Your task to perform on an android device: What's the weather going to be this weekend? Image 0: 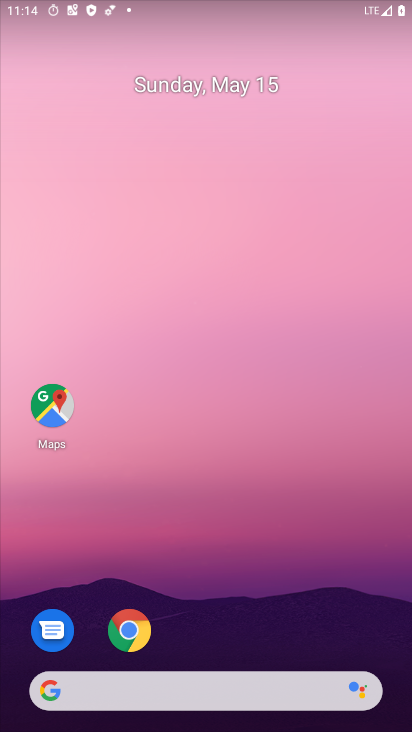
Step 0: click (147, 686)
Your task to perform on an android device: What's the weather going to be this weekend? Image 1: 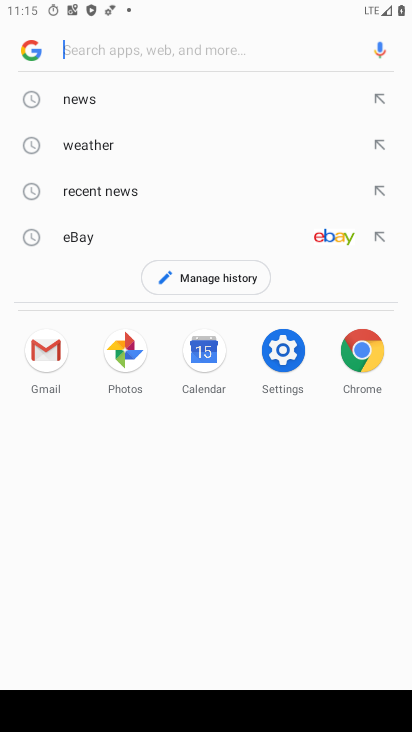
Step 1: click (83, 144)
Your task to perform on an android device: What's the weather going to be this weekend? Image 2: 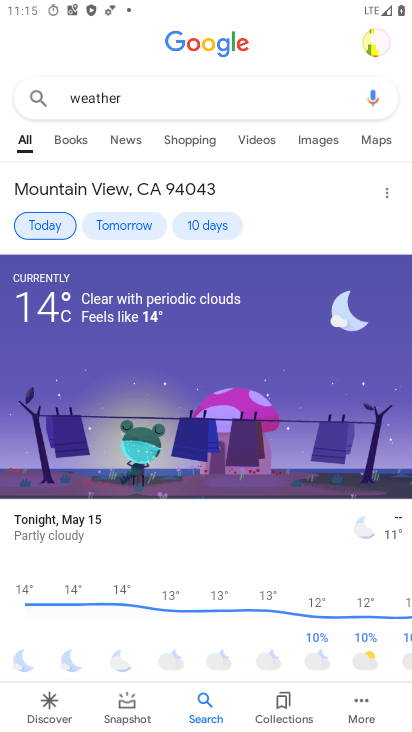
Step 2: click (186, 215)
Your task to perform on an android device: What's the weather going to be this weekend? Image 3: 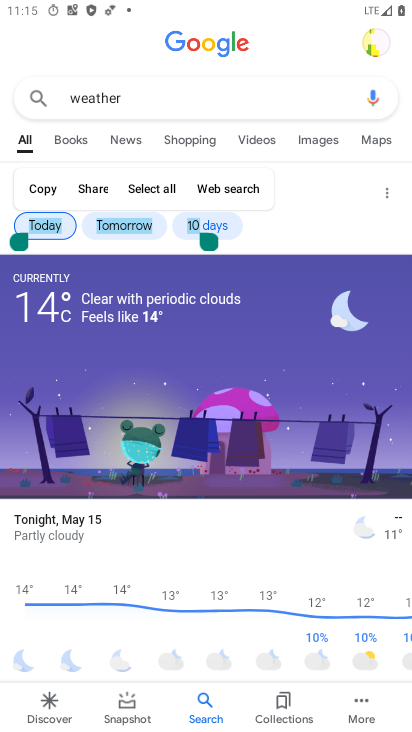
Step 3: drag from (192, 558) to (170, 710)
Your task to perform on an android device: What's the weather going to be this weekend? Image 4: 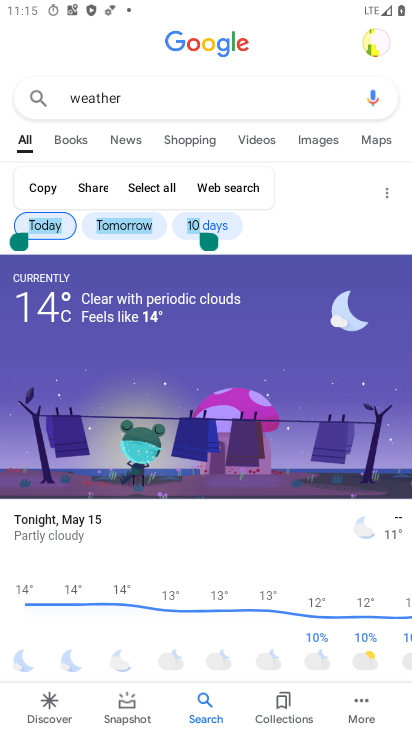
Step 4: click (210, 225)
Your task to perform on an android device: What's the weather going to be this weekend? Image 5: 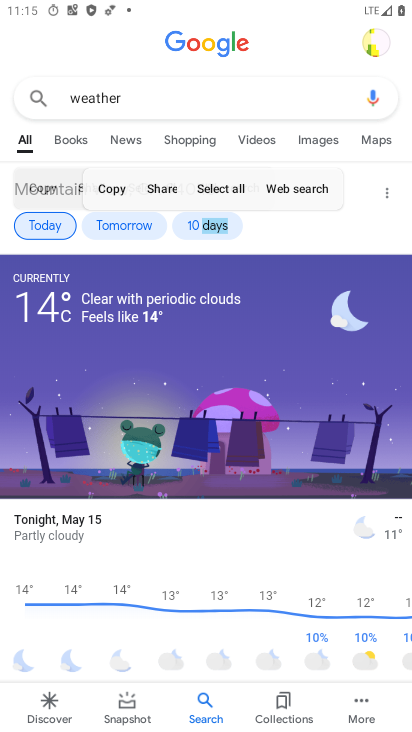
Step 5: click (304, 221)
Your task to perform on an android device: What's the weather going to be this weekend? Image 6: 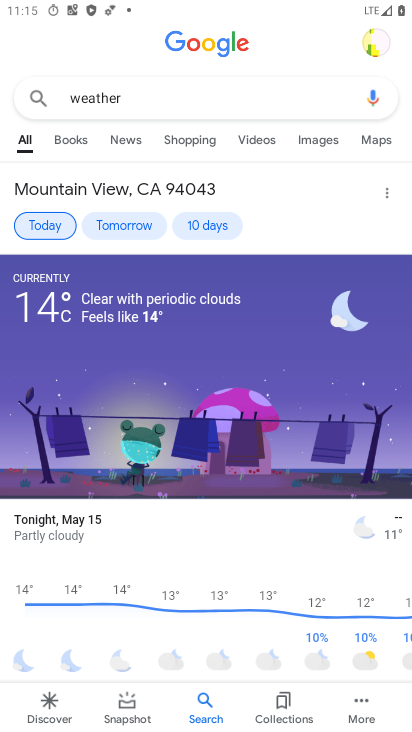
Step 6: click (204, 221)
Your task to perform on an android device: What's the weather going to be this weekend? Image 7: 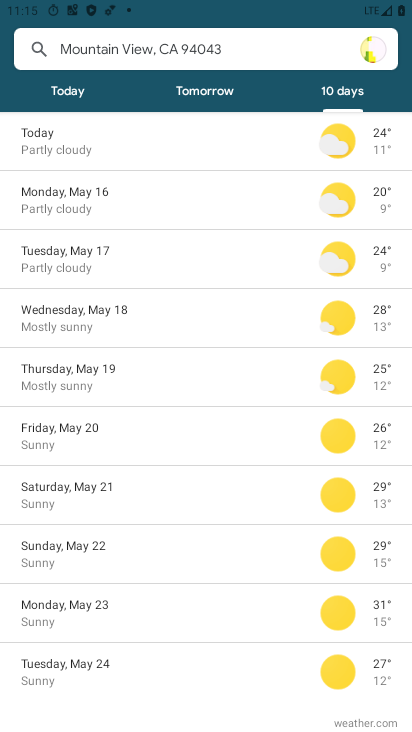
Step 7: task complete